Your task to perform on an android device: open app "Adobe Acrobat Reader: Edit PDF" Image 0: 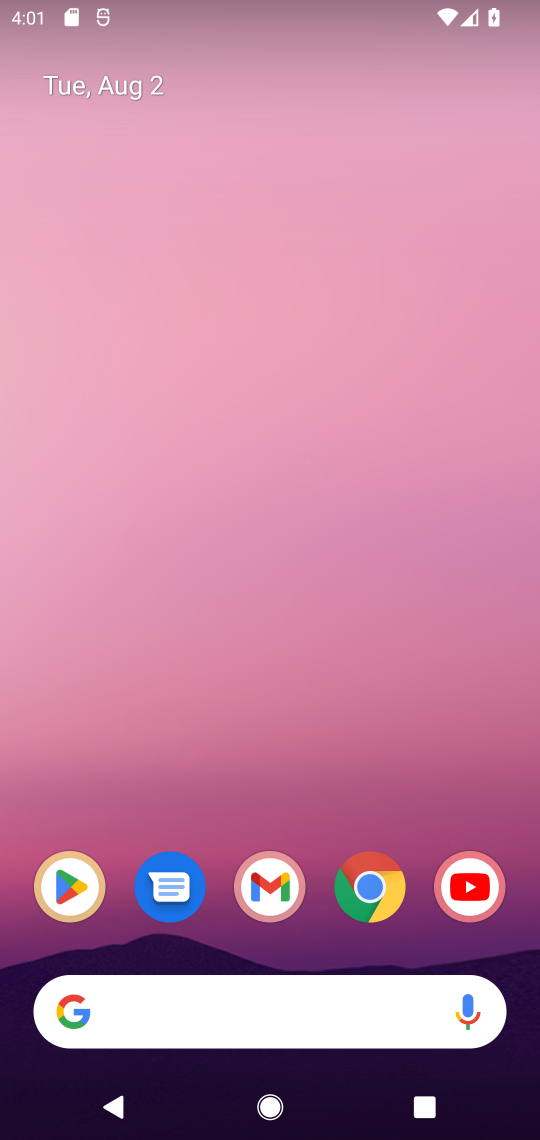
Step 0: click (51, 878)
Your task to perform on an android device: open app "Adobe Acrobat Reader: Edit PDF" Image 1: 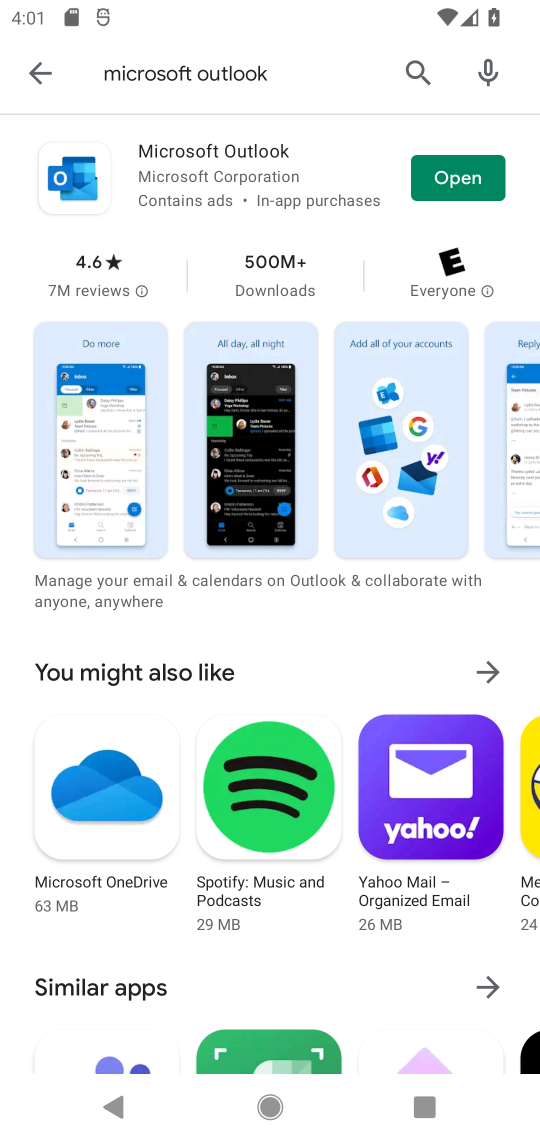
Step 1: click (26, 77)
Your task to perform on an android device: open app "Adobe Acrobat Reader: Edit PDF" Image 2: 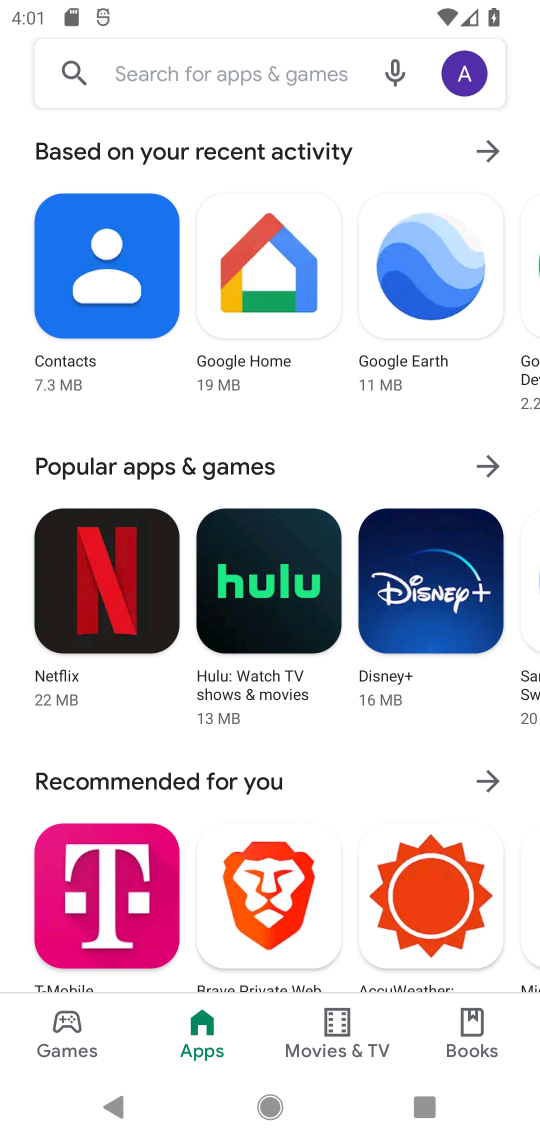
Step 2: click (128, 72)
Your task to perform on an android device: open app "Adobe Acrobat Reader: Edit PDF" Image 3: 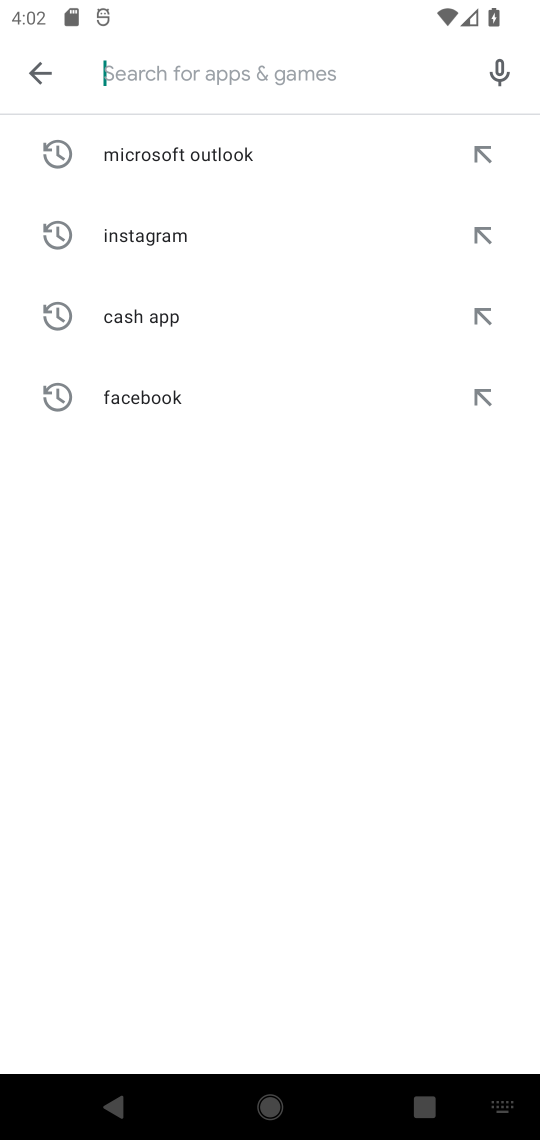
Step 3: type "Adobe Acrobat Reader"
Your task to perform on an android device: open app "Adobe Acrobat Reader: Edit PDF" Image 4: 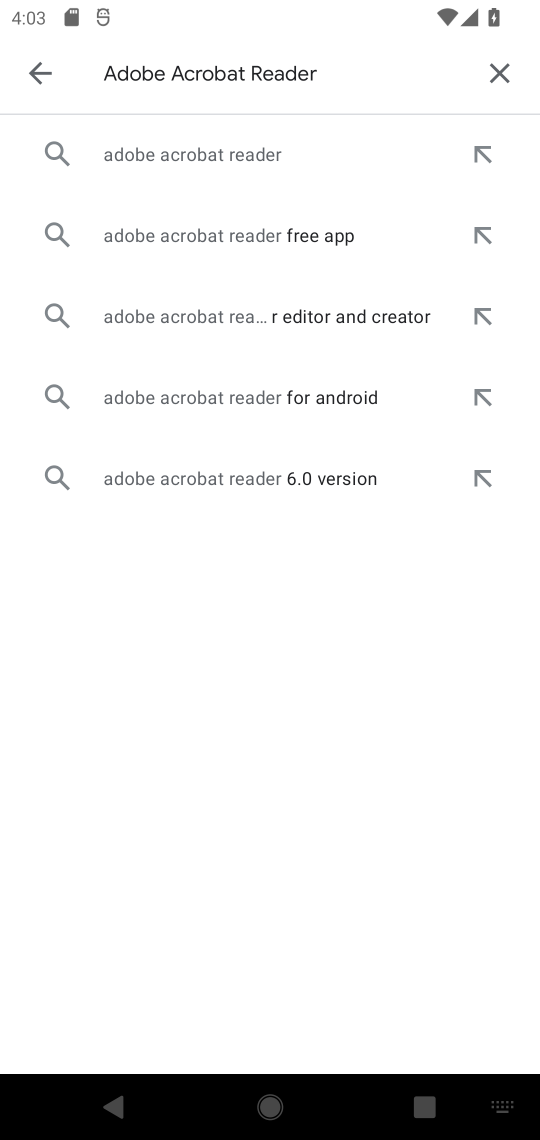
Step 4: type ""
Your task to perform on an android device: open app "Adobe Acrobat Reader: Edit PDF" Image 5: 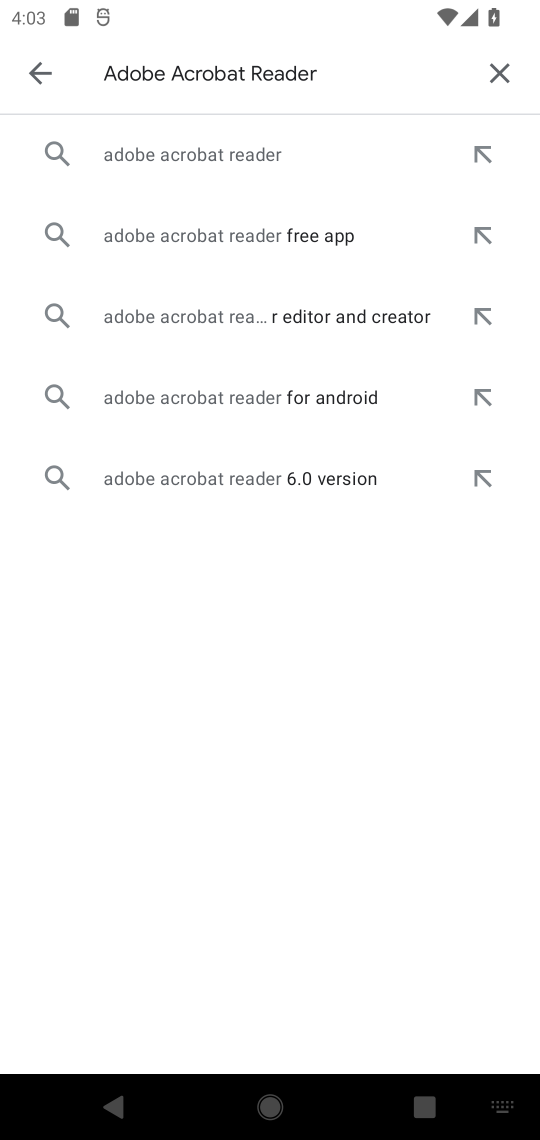
Step 5: click (165, 173)
Your task to perform on an android device: open app "Adobe Acrobat Reader: Edit PDF" Image 6: 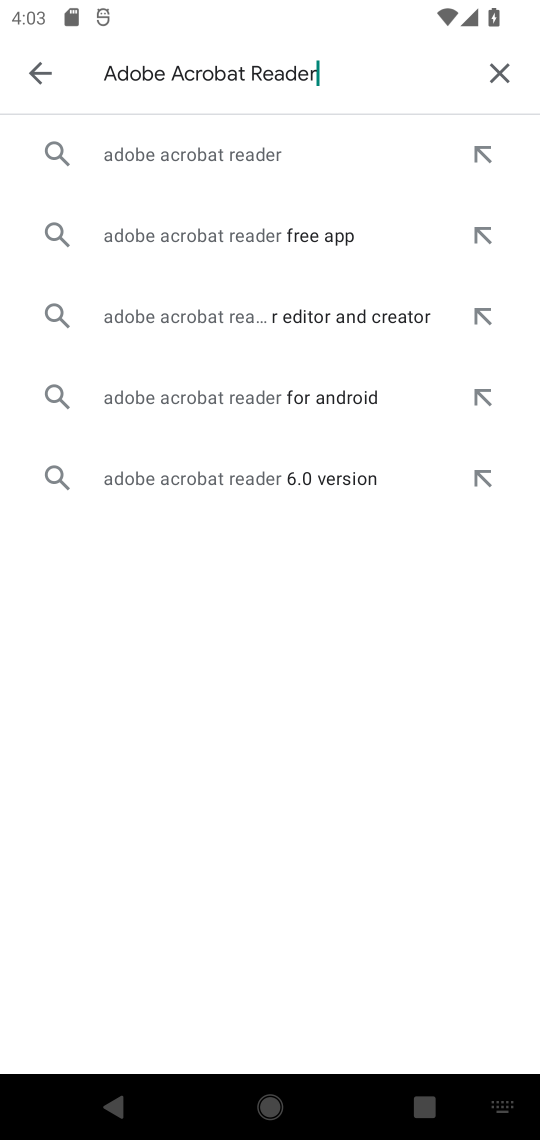
Step 6: click (162, 166)
Your task to perform on an android device: open app "Adobe Acrobat Reader: Edit PDF" Image 7: 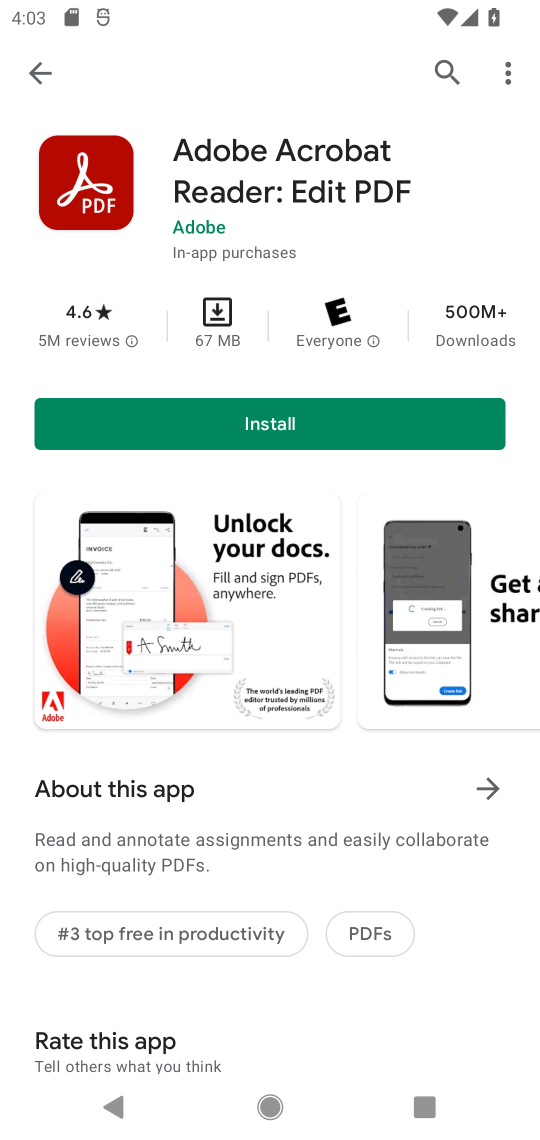
Step 7: task complete